Your task to perform on an android device: Search for sushi restaurants on Maps Image 0: 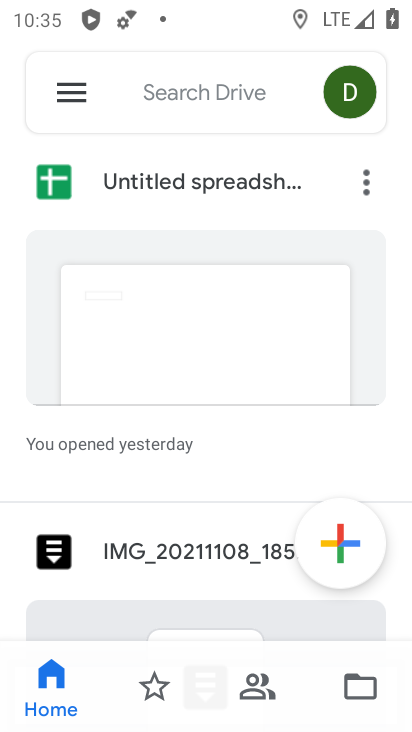
Step 0: press home button
Your task to perform on an android device: Search for sushi restaurants on Maps Image 1: 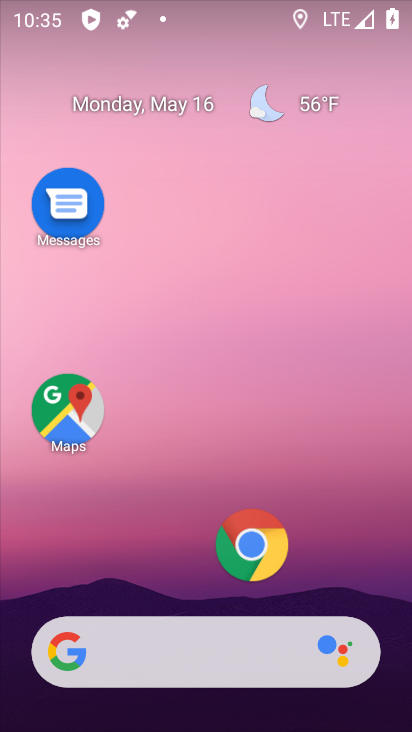
Step 1: drag from (201, 611) to (140, 20)
Your task to perform on an android device: Search for sushi restaurants on Maps Image 2: 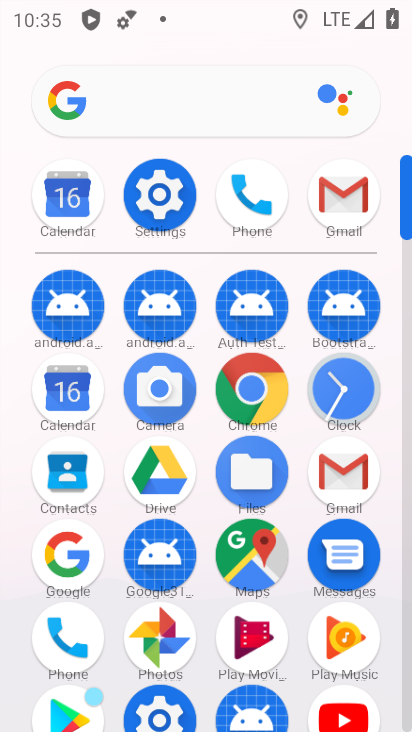
Step 2: click (267, 546)
Your task to perform on an android device: Search for sushi restaurants on Maps Image 3: 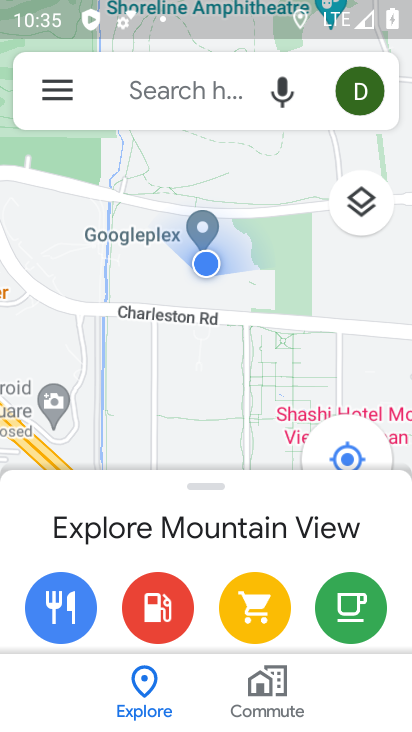
Step 3: click (145, 91)
Your task to perform on an android device: Search for sushi restaurants on Maps Image 4: 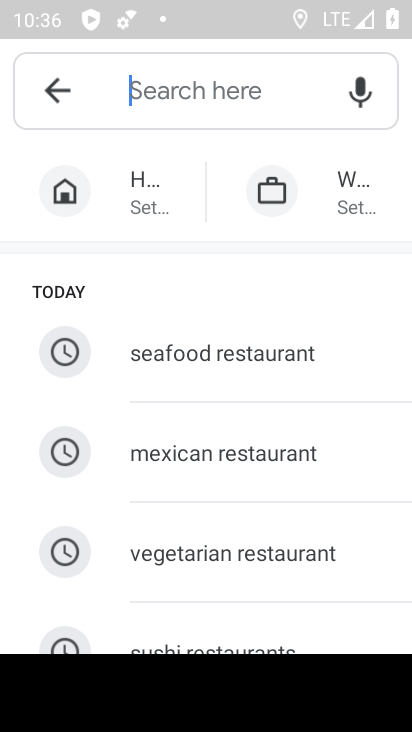
Step 4: click (195, 627)
Your task to perform on an android device: Search for sushi restaurants on Maps Image 5: 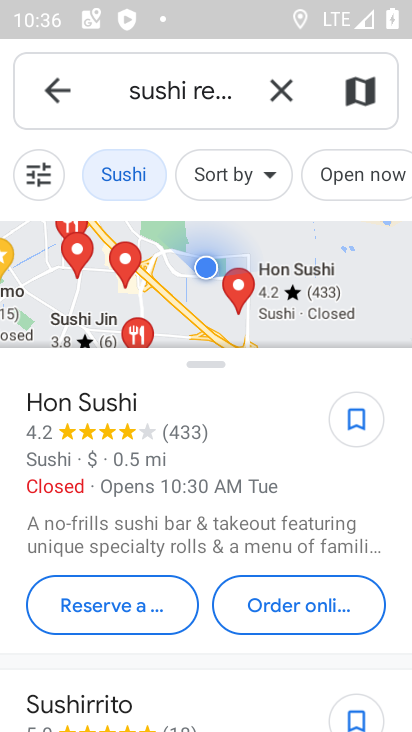
Step 5: task complete